Your task to perform on an android device: see tabs open on other devices in the chrome app Image 0: 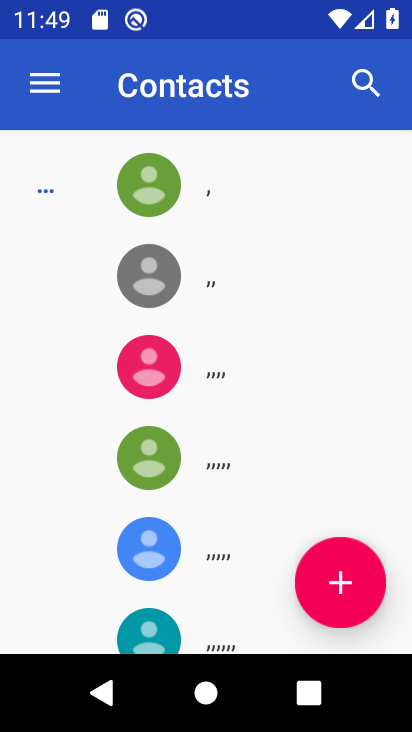
Step 0: press home button
Your task to perform on an android device: see tabs open on other devices in the chrome app Image 1: 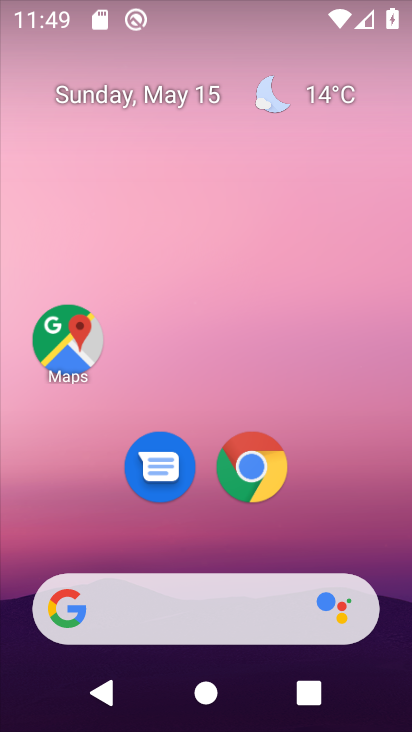
Step 1: click (257, 463)
Your task to perform on an android device: see tabs open on other devices in the chrome app Image 2: 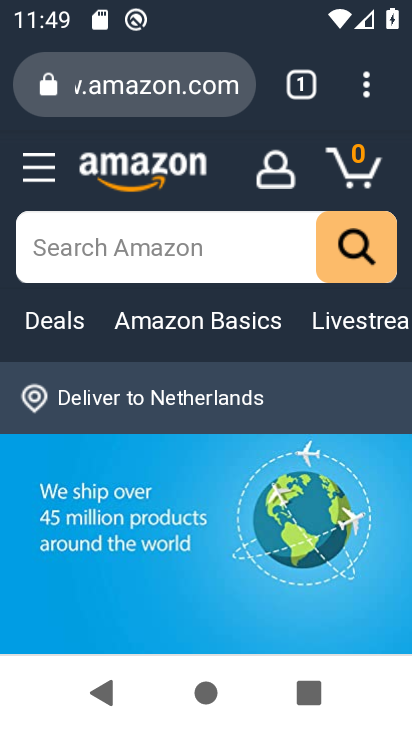
Step 2: click (364, 81)
Your task to perform on an android device: see tabs open on other devices in the chrome app Image 3: 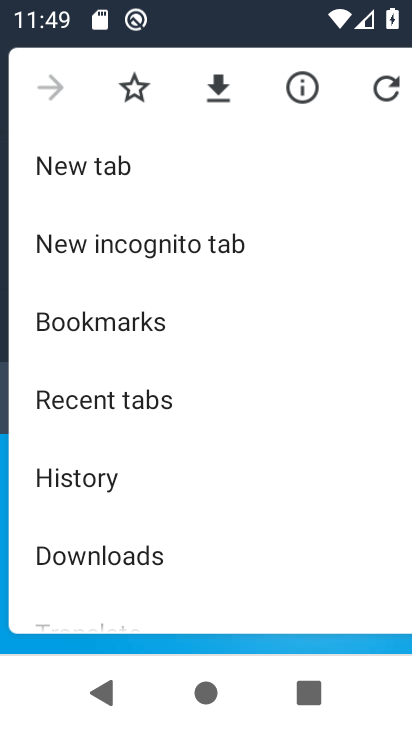
Step 3: click (185, 389)
Your task to perform on an android device: see tabs open on other devices in the chrome app Image 4: 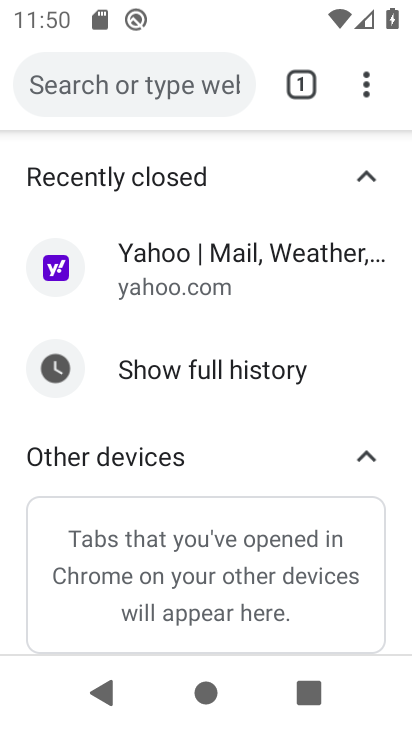
Step 4: task complete